Your task to perform on an android device: Search for Italian restaurants on Maps Image 0: 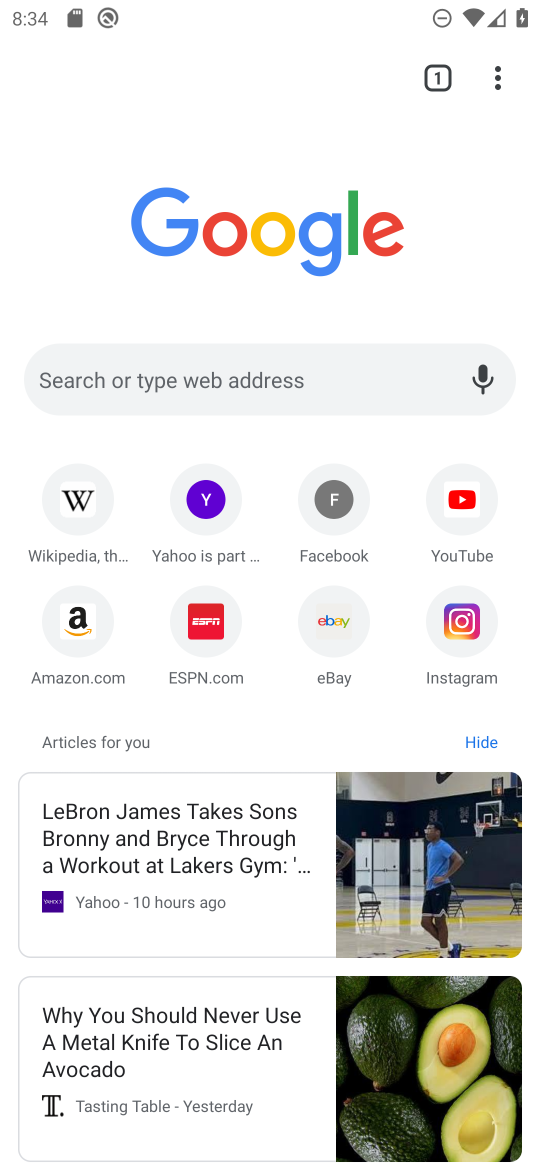
Step 0: press home button
Your task to perform on an android device: Search for Italian restaurants on Maps Image 1: 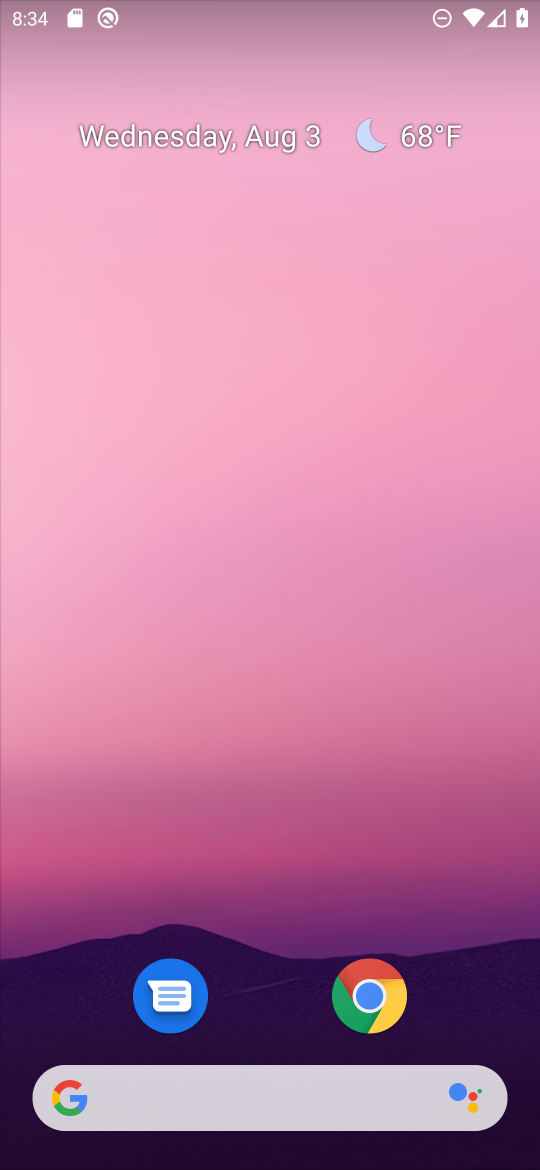
Step 1: drag from (307, 876) to (306, 5)
Your task to perform on an android device: Search for Italian restaurants on Maps Image 2: 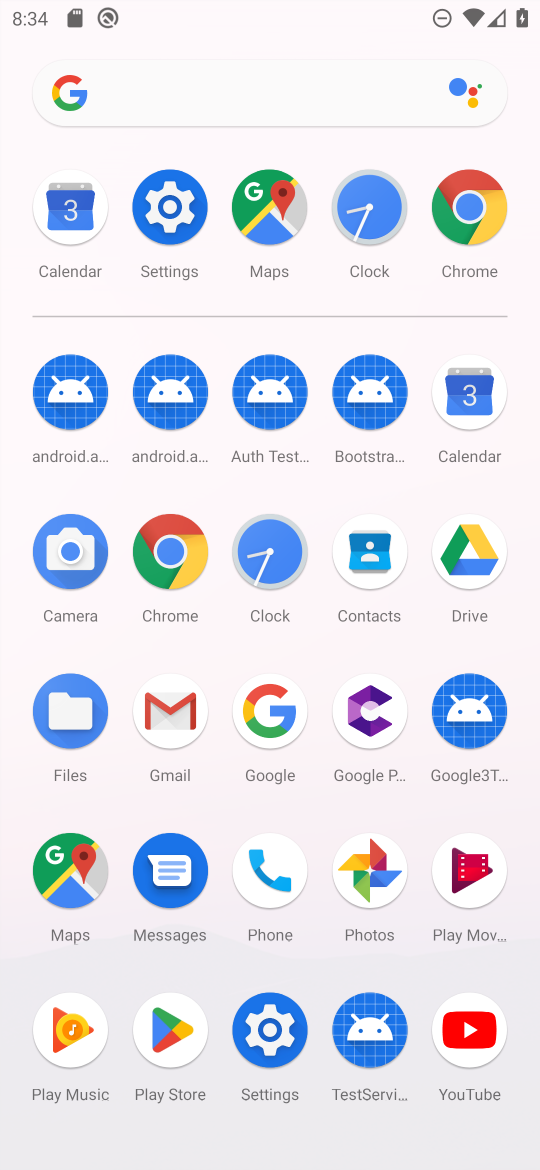
Step 2: click (270, 212)
Your task to perform on an android device: Search for Italian restaurants on Maps Image 3: 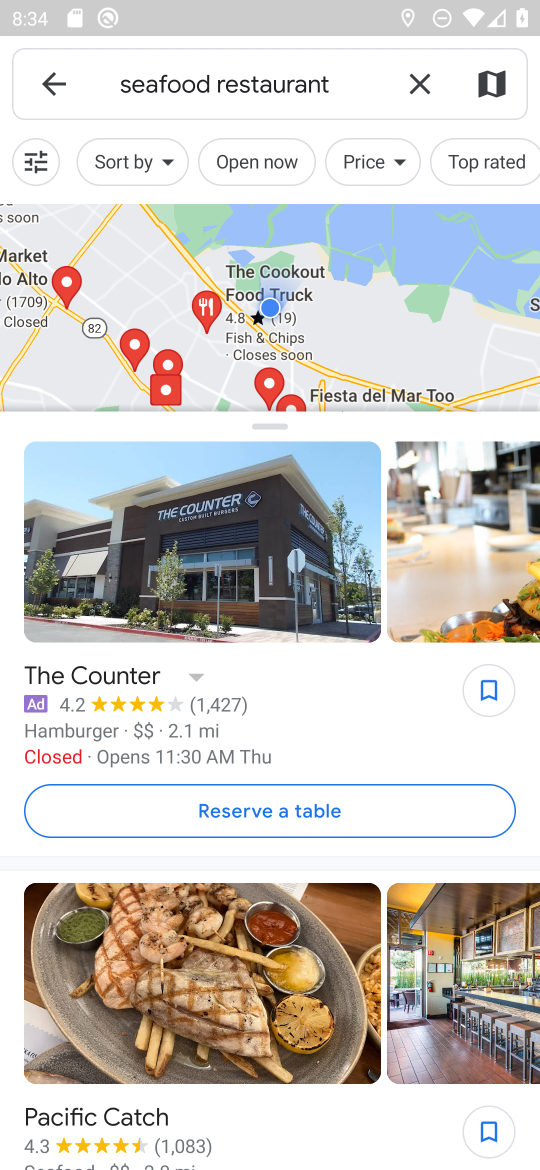
Step 3: click (421, 79)
Your task to perform on an android device: Search for Italian restaurants on Maps Image 4: 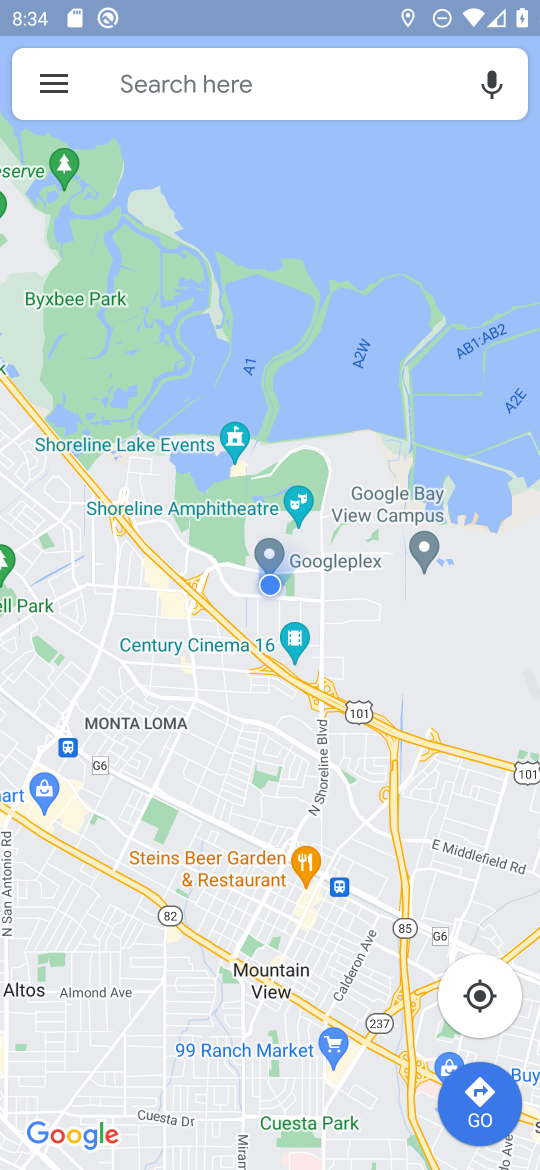
Step 4: click (321, 86)
Your task to perform on an android device: Search for Italian restaurants on Maps Image 5: 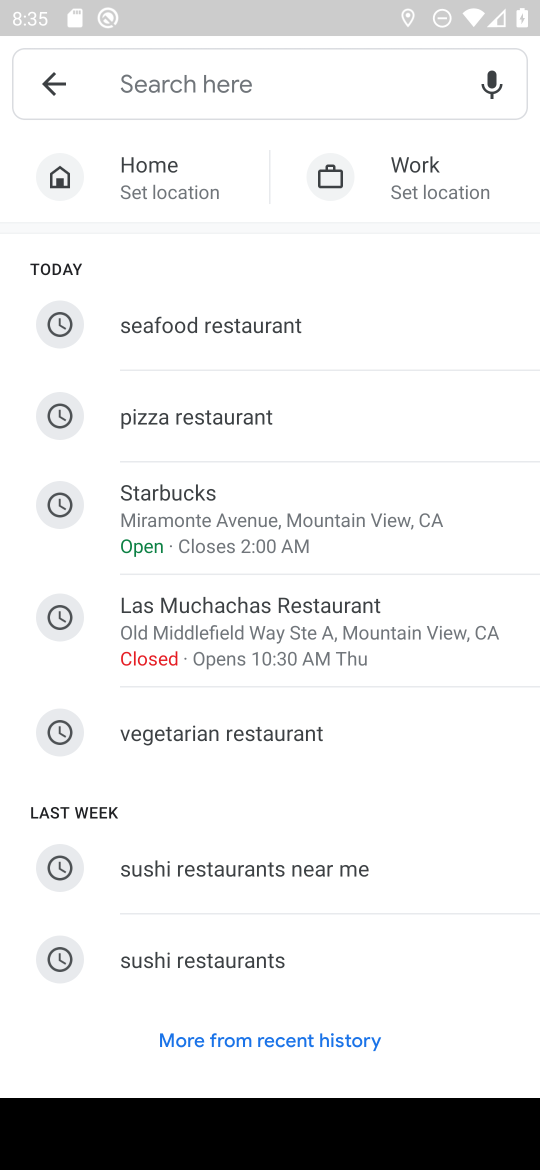
Step 5: type "italian restaurants"
Your task to perform on an android device: Search for Italian restaurants on Maps Image 6: 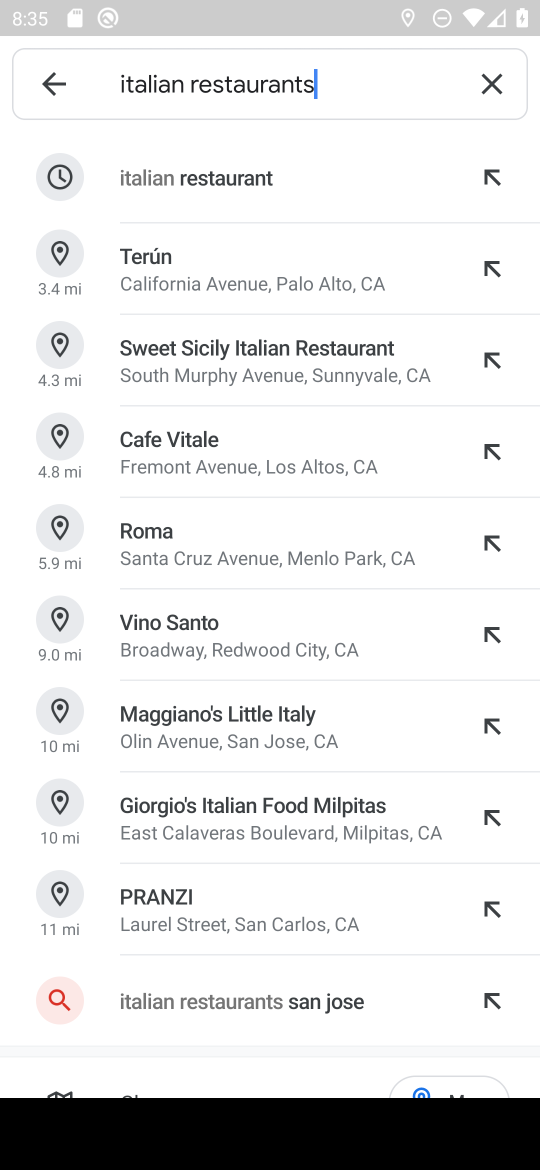
Step 6: click (242, 184)
Your task to perform on an android device: Search for Italian restaurants on Maps Image 7: 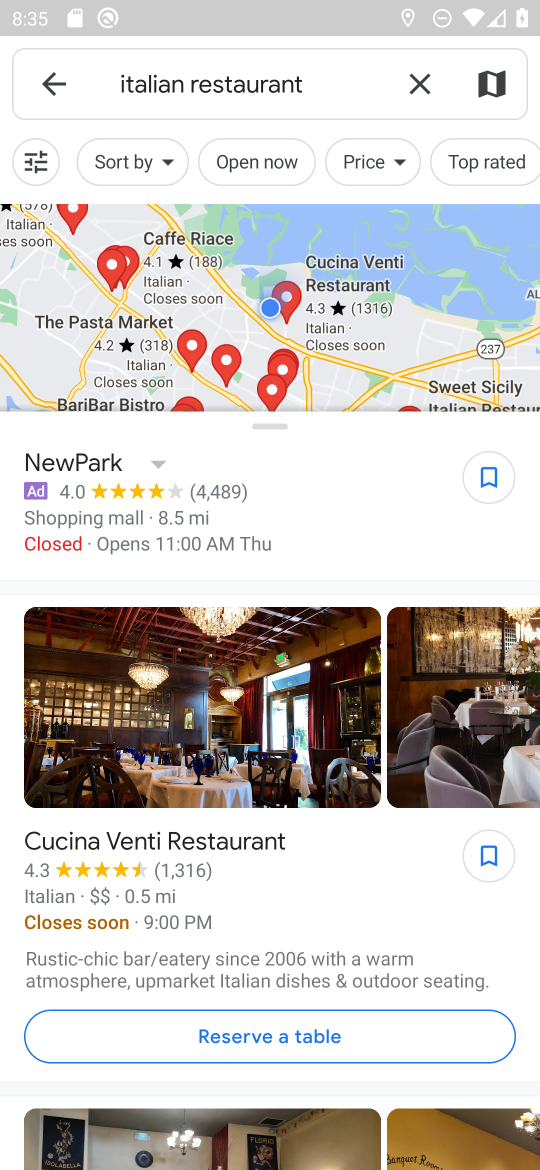
Step 7: task complete